Your task to perform on an android device: turn on priority inbox in the gmail app Image 0: 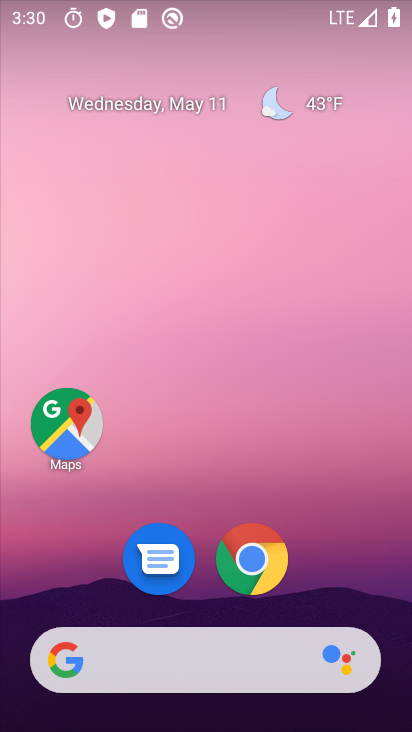
Step 0: drag from (343, 506) to (250, 71)
Your task to perform on an android device: turn on priority inbox in the gmail app Image 1: 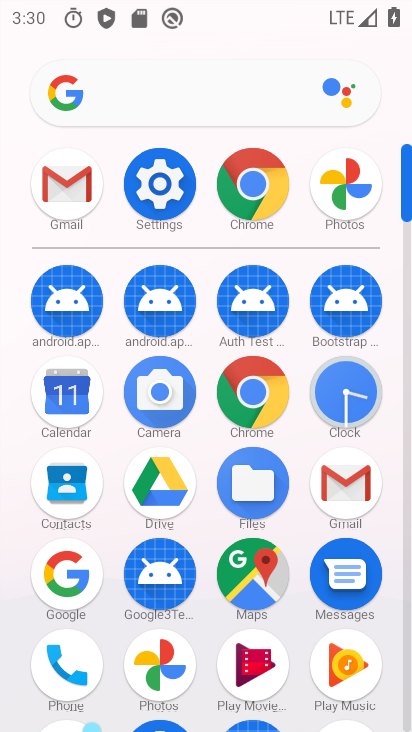
Step 1: click (73, 192)
Your task to perform on an android device: turn on priority inbox in the gmail app Image 2: 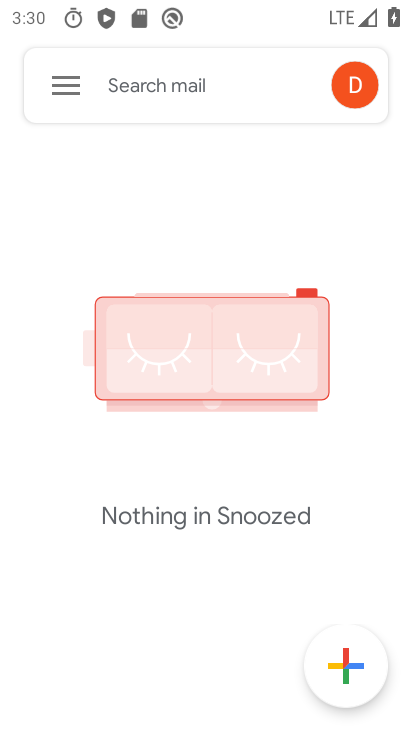
Step 2: click (58, 86)
Your task to perform on an android device: turn on priority inbox in the gmail app Image 3: 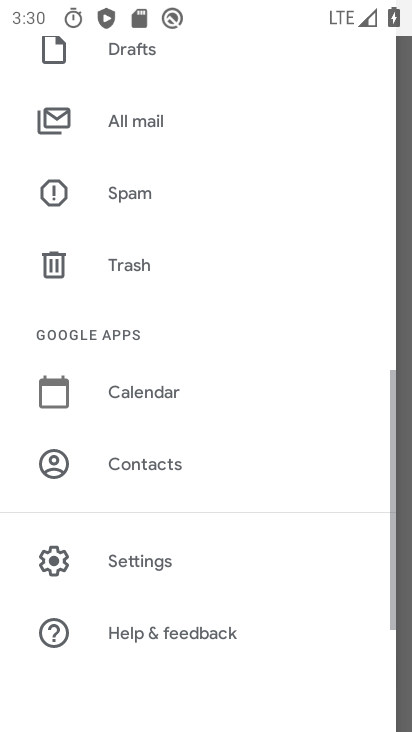
Step 3: click (186, 549)
Your task to perform on an android device: turn on priority inbox in the gmail app Image 4: 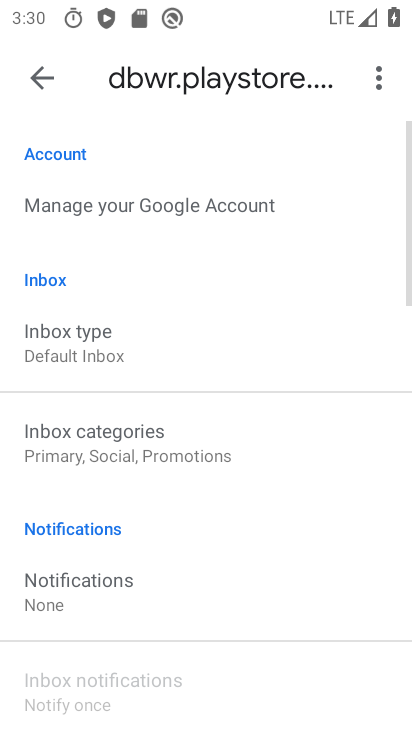
Step 4: click (111, 346)
Your task to perform on an android device: turn on priority inbox in the gmail app Image 5: 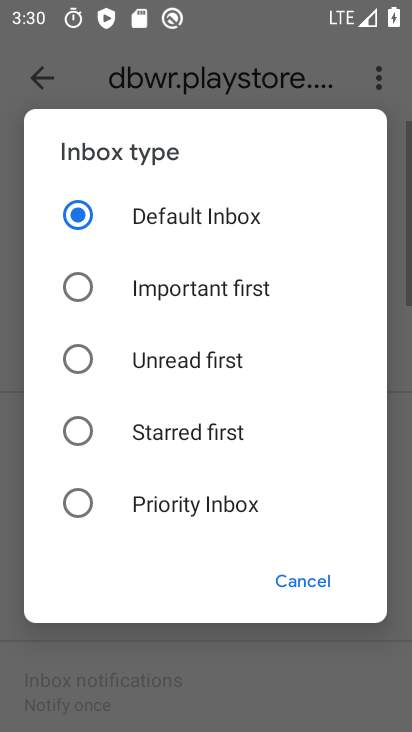
Step 5: click (157, 504)
Your task to perform on an android device: turn on priority inbox in the gmail app Image 6: 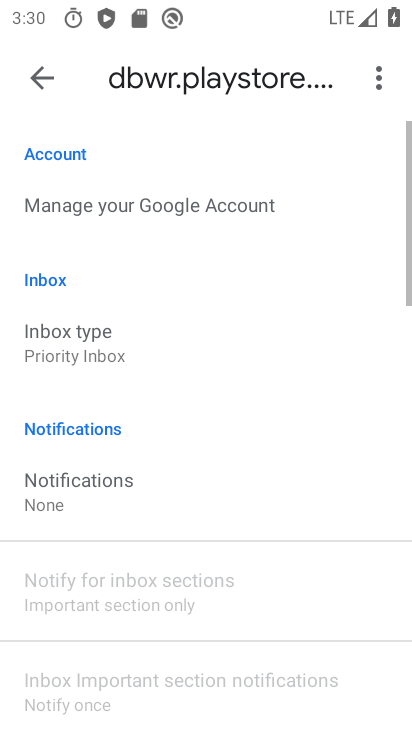
Step 6: task complete